Your task to perform on an android device: Go to CNN.com Image 0: 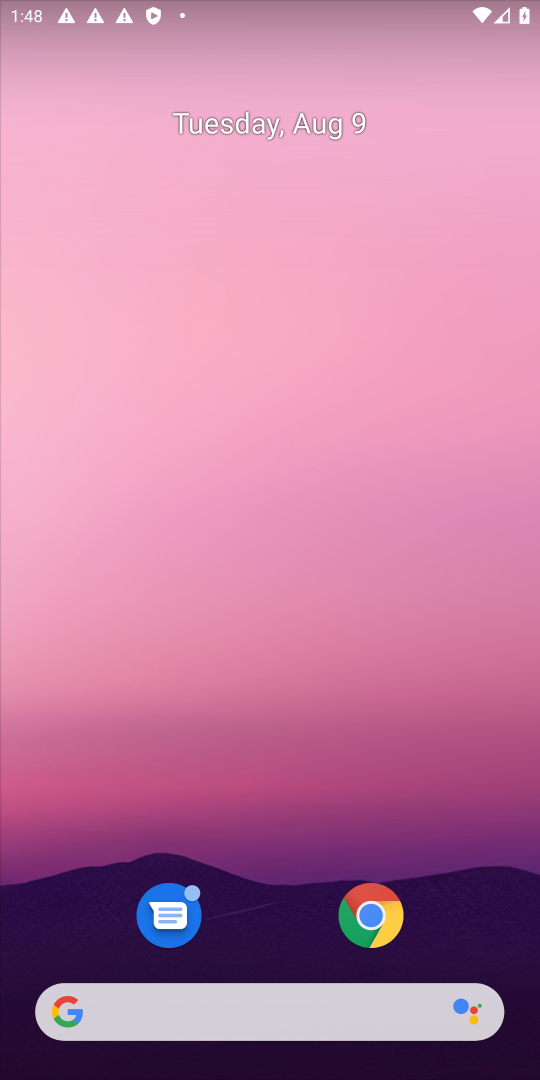
Step 0: drag from (302, 574) to (242, 351)
Your task to perform on an android device: Go to CNN.com Image 1: 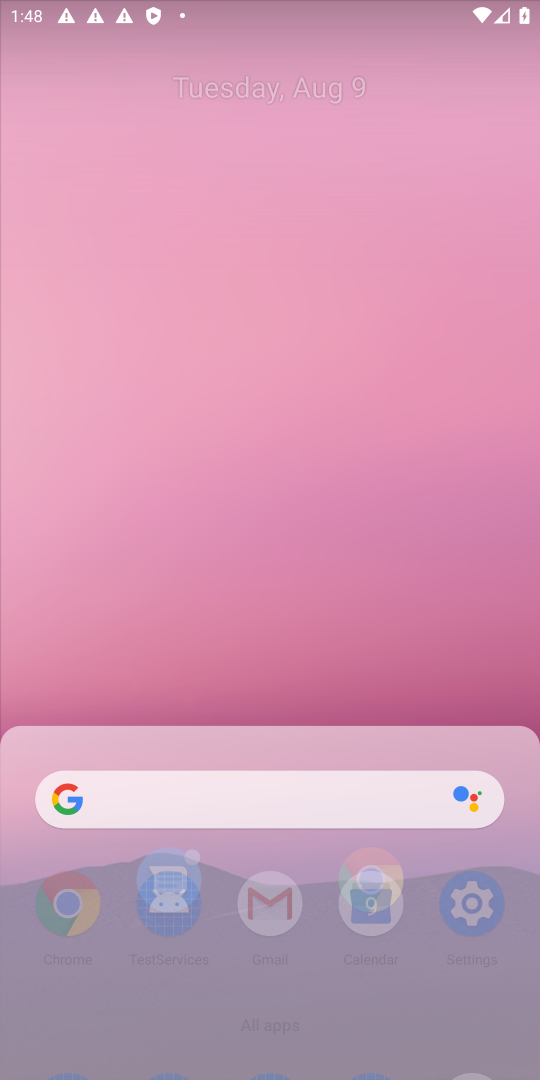
Step 1: drag from (268, 568) to (218, 257)
Your task to perform on an android device: Go to CNN.com Image 2: 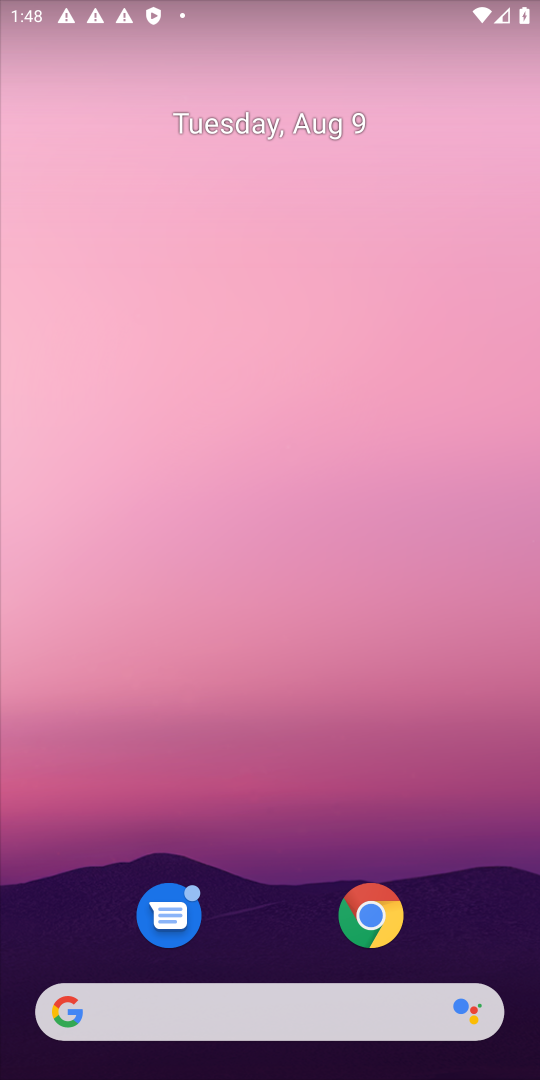
Step 2: drag from (214, 339) to (191, 183)
Your task to perform on an android device: Go to CNN.com Image 3: 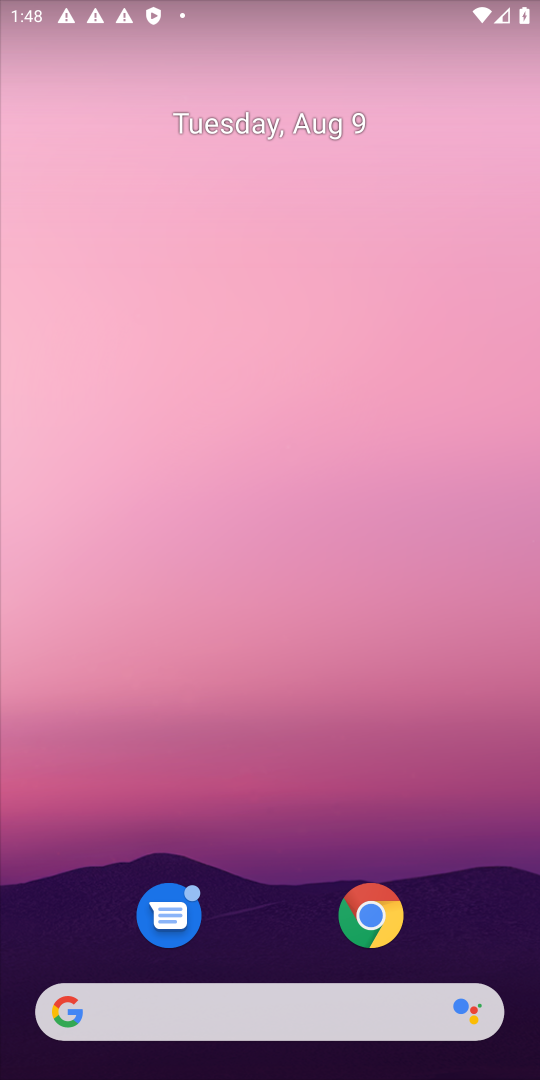
Step 3: drag from (238, 782) to (221, 355)
Your task to perform on an android device: Go to CNN.com Image 4: 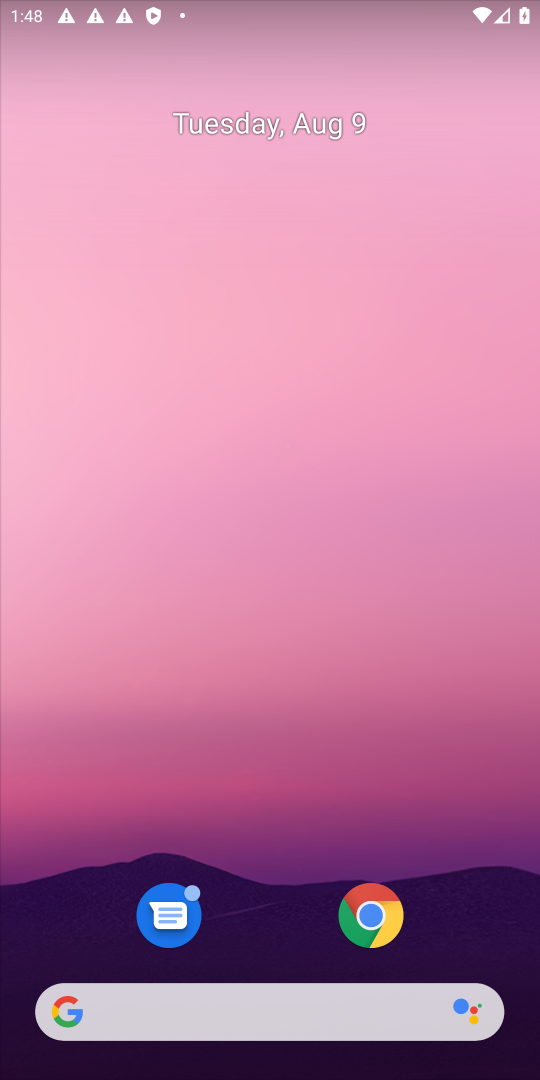
Step 4: drag from (247, 685) to (274, 225)
Your task to perform on an android device: Go to CNN.com Image 5: 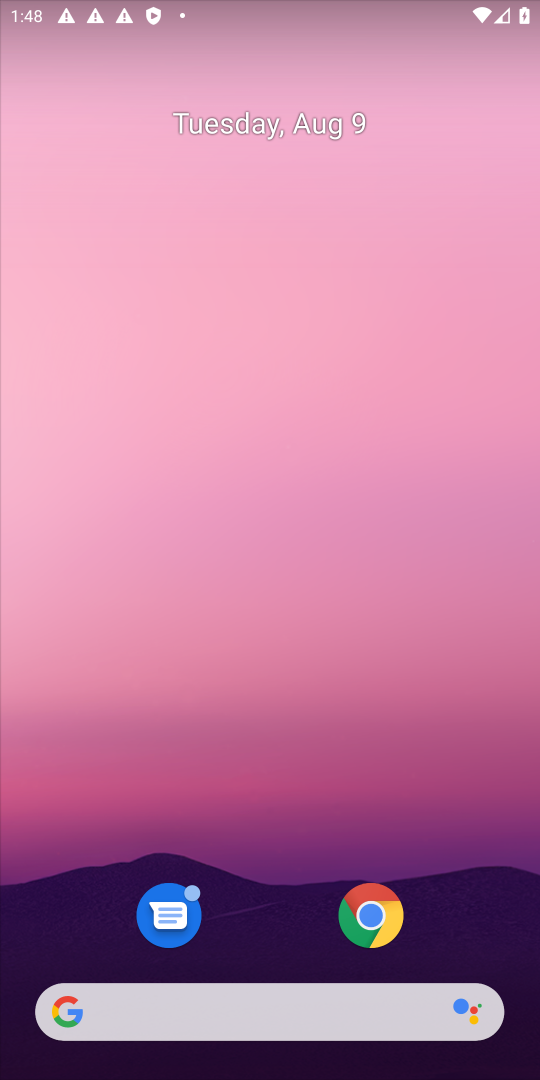
Step 5: drag from (353, 770) to (188, 253)
Your task to perform on an android device: Go to CNN.com Image 6: 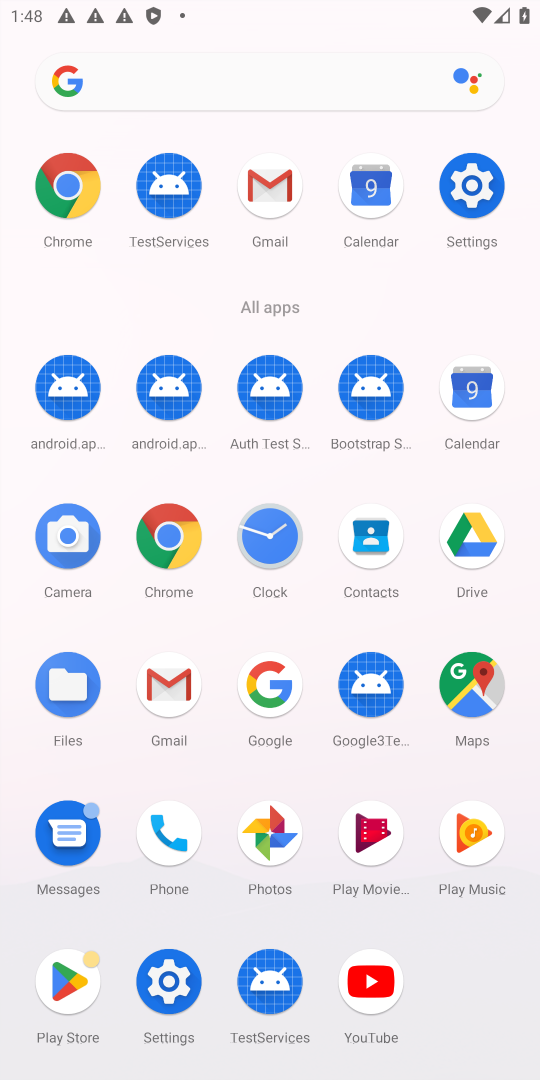
Step 6: click (75, 205)
Your task to perform on an android device: Go to CNN.com Image 7: 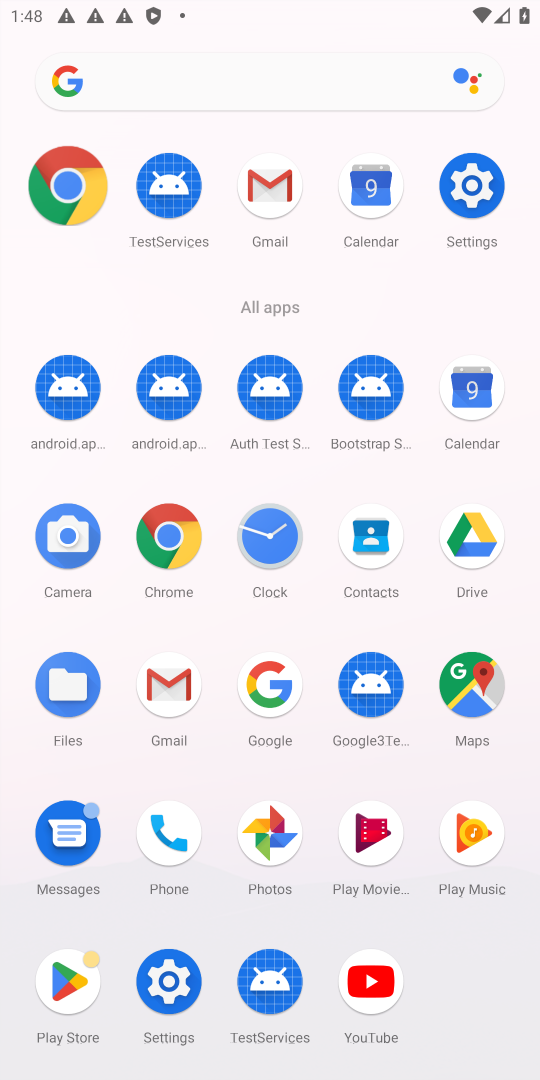
Step 7: click (74, 203)
Your task to perform on an android device: Go to CNN.com Image 8: 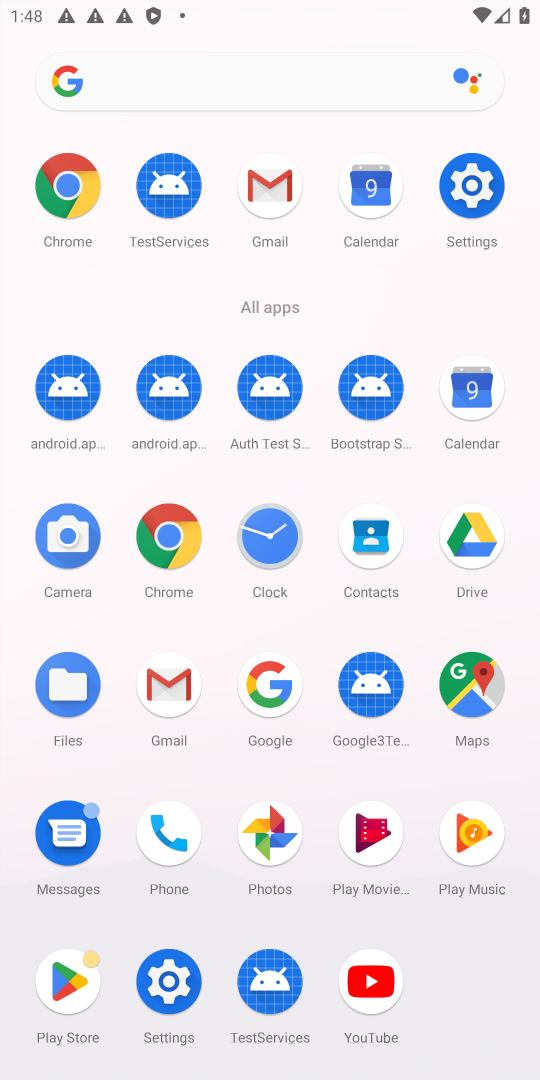
Step 8: click (63, 182)
Your task to perform on an android device: Go to CNN.com Image 9: 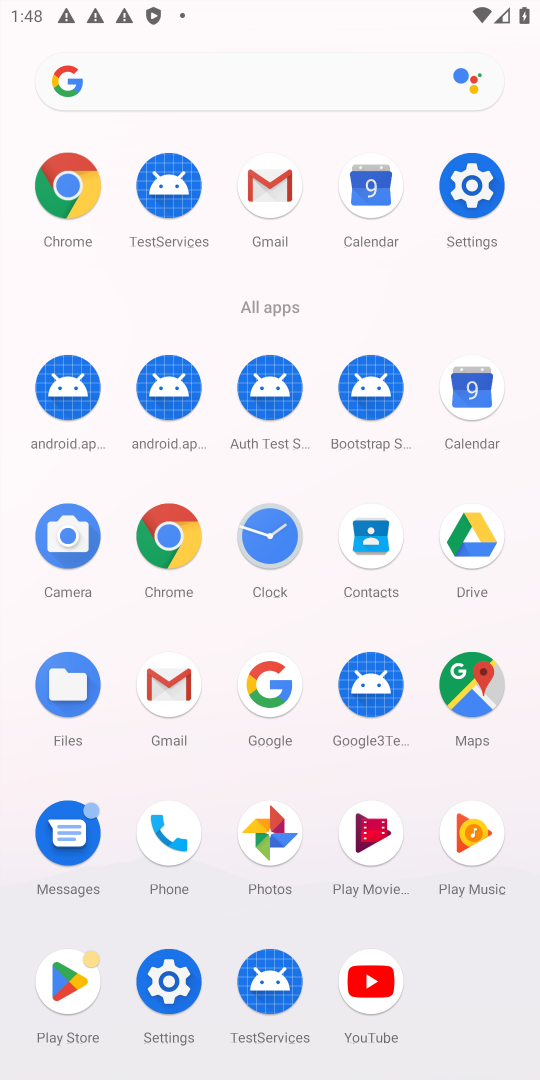
Step 9: click (62, 181)
Your task to perform on an android device: Go to CNN.com Image 10: 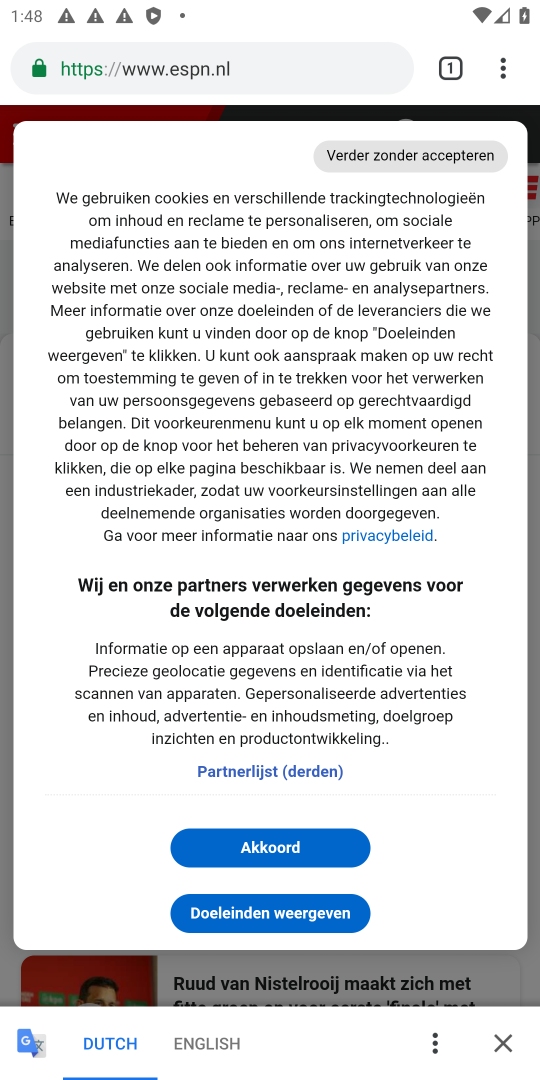
Step 10: drag from (514, 51) to (329, 819)
Your task to perform on an android device: Go to CNN.com Image 11: 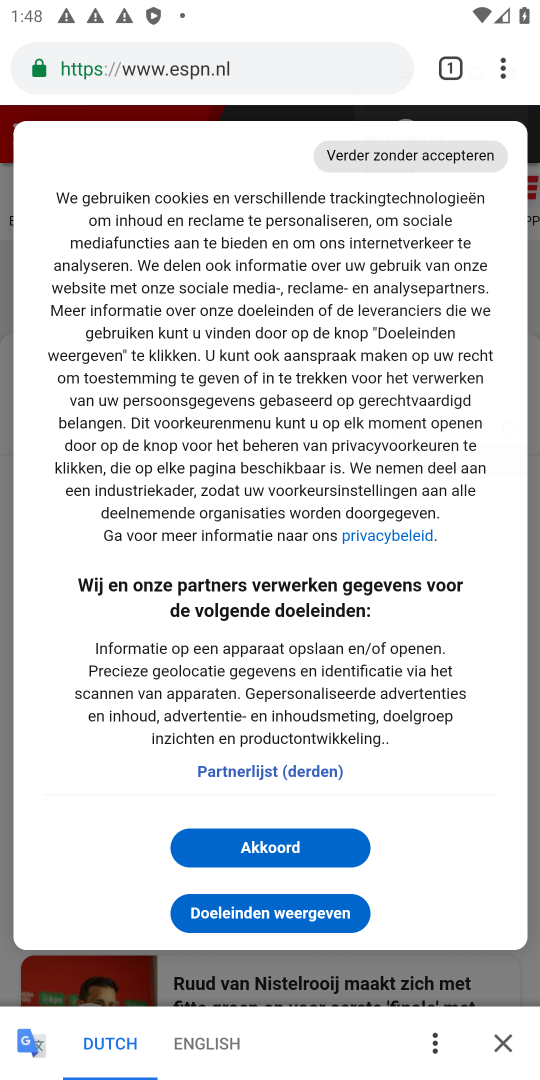
Step 11: click (242, 125)
Your task to perform on an android device: Go to CNN.com Image 12: 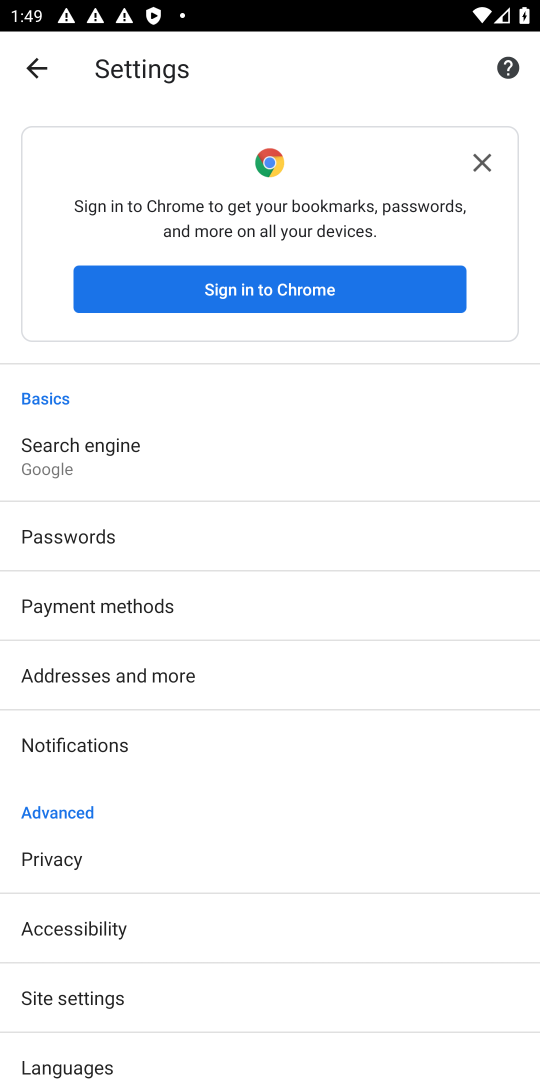
Step 12: click (29, 68)
Your task to perform on an android device: Go to CNN.com Image 13: 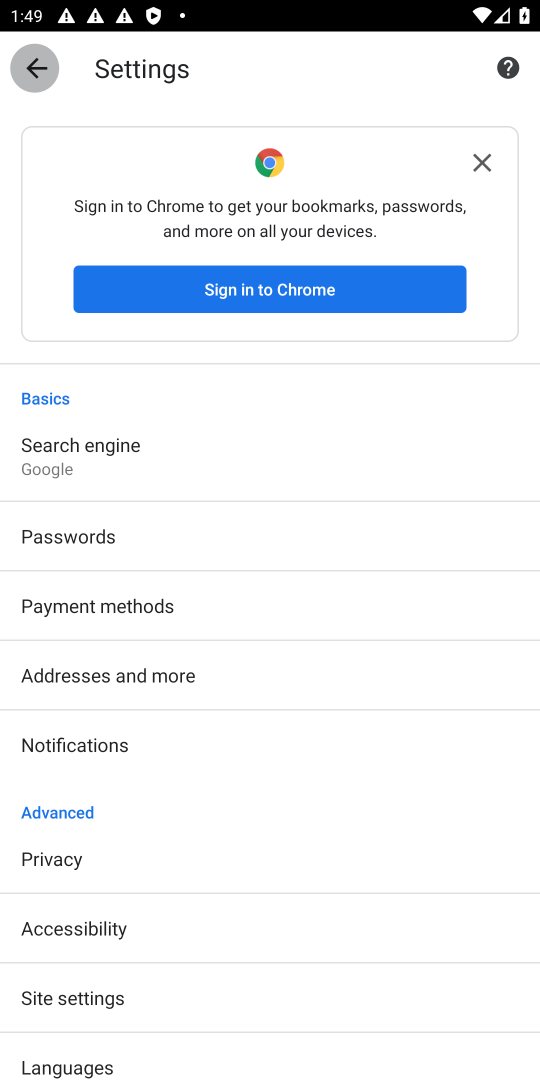
Step 13: click (29, 68)
Your task to perform on an android device: Go to CNN.com Image 14: 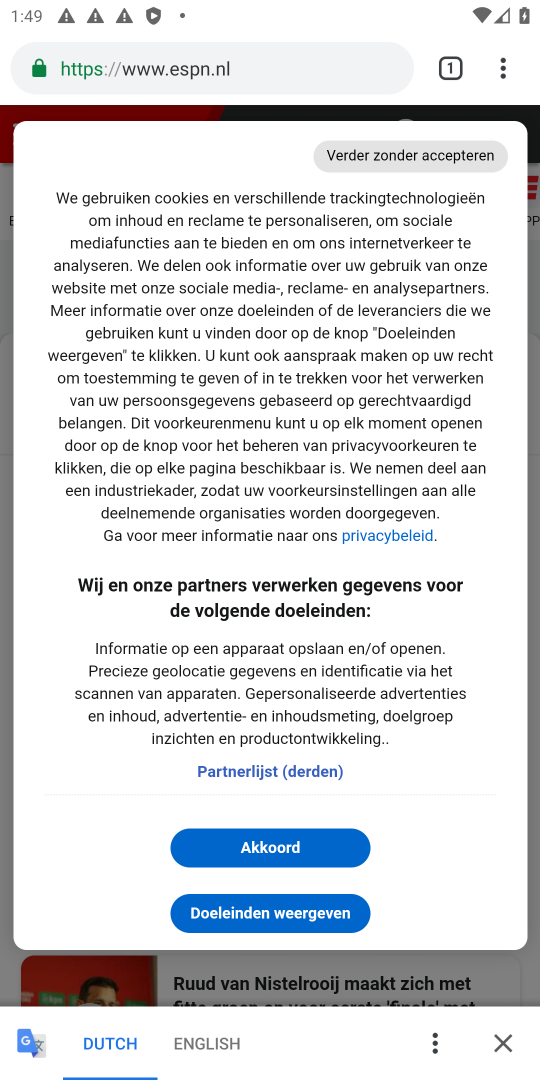
Step 14: click (491, 74)
Your task to perform on an android device: Go to CNN.com Image 15: 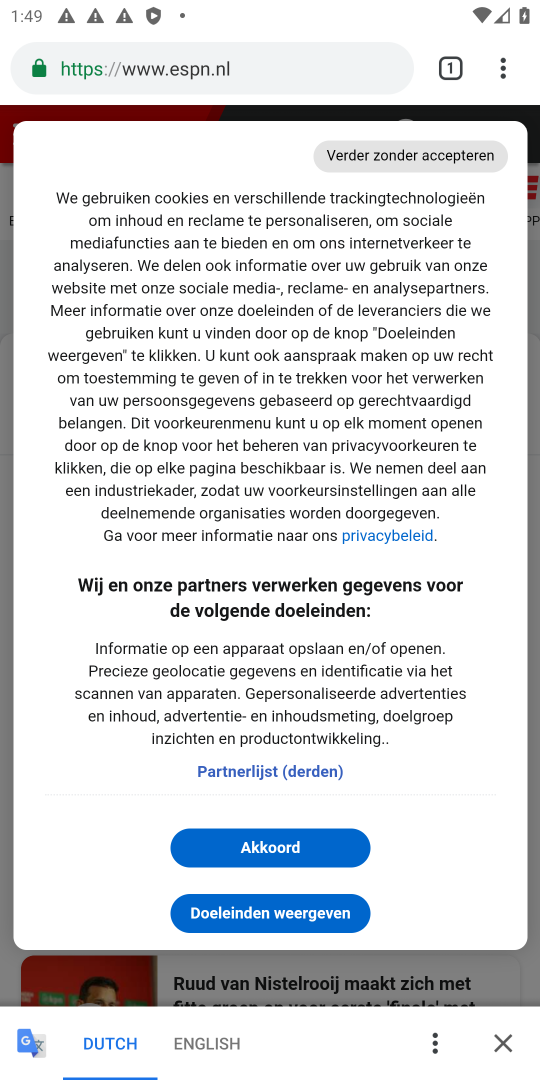
Step 15: click (494, 72)
Your task to perform on an android device: Go to CNN.com Image 16: 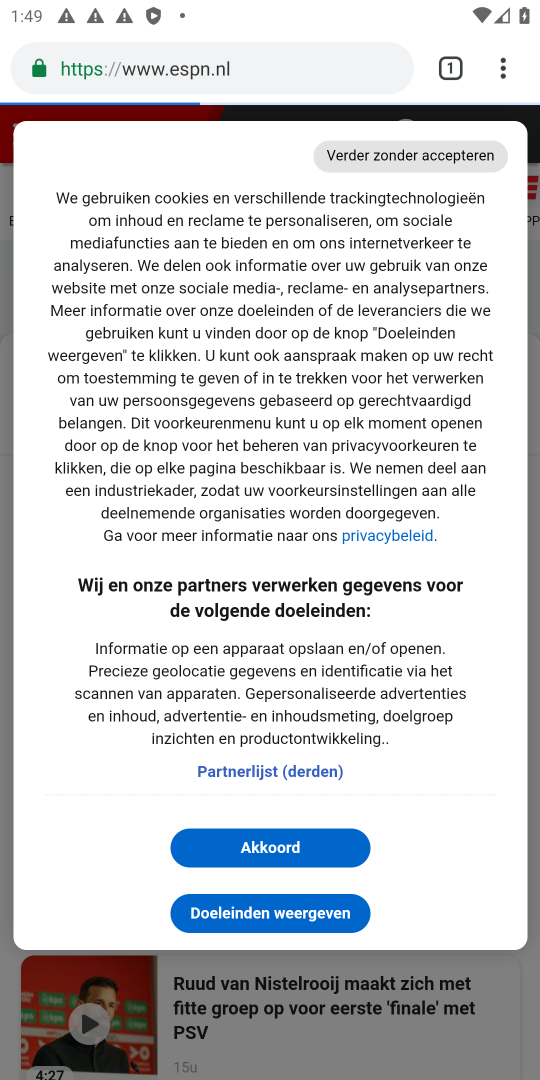
Step 16: click (487, 76)
Your task to perform on an android device: Go to CNN.com Image 17: 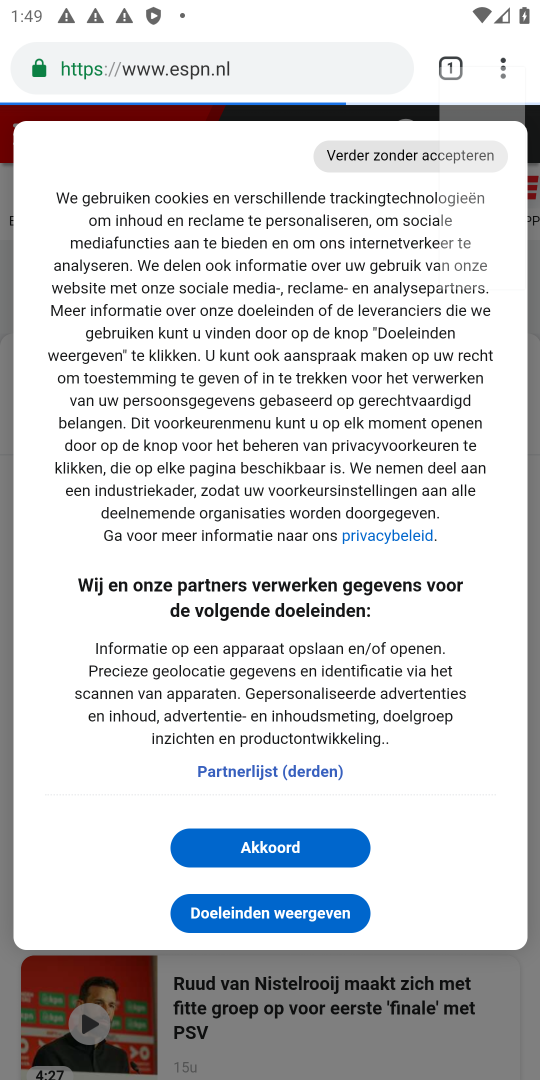
Step 17: click (487, 76)
Your task to perform on an android device: Go to CNN.com Image 18: 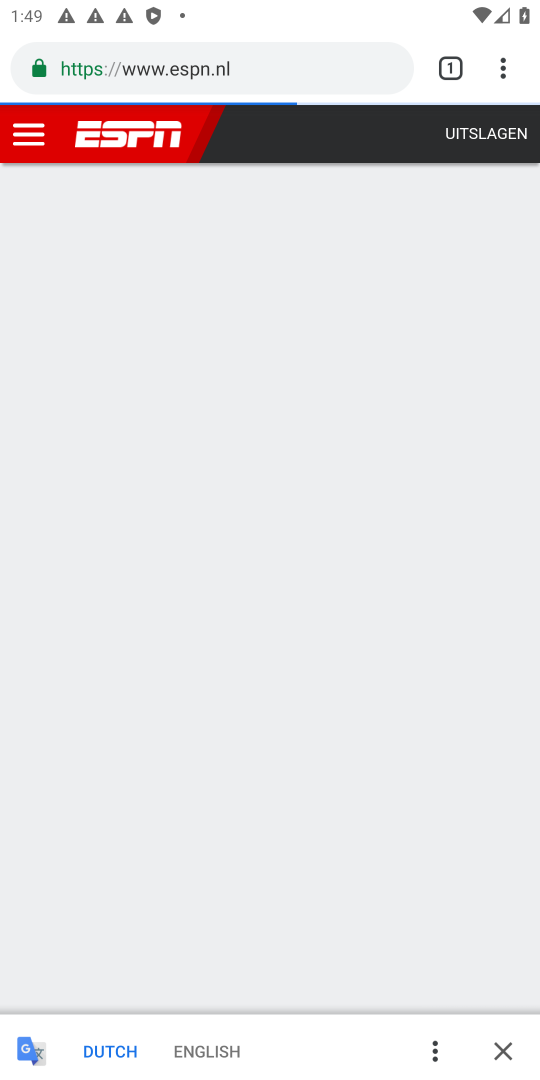
Step 18: drag from (487, 65) to (229, 131)
Your task to perform on an android device: Go to CNN.com Image 19: 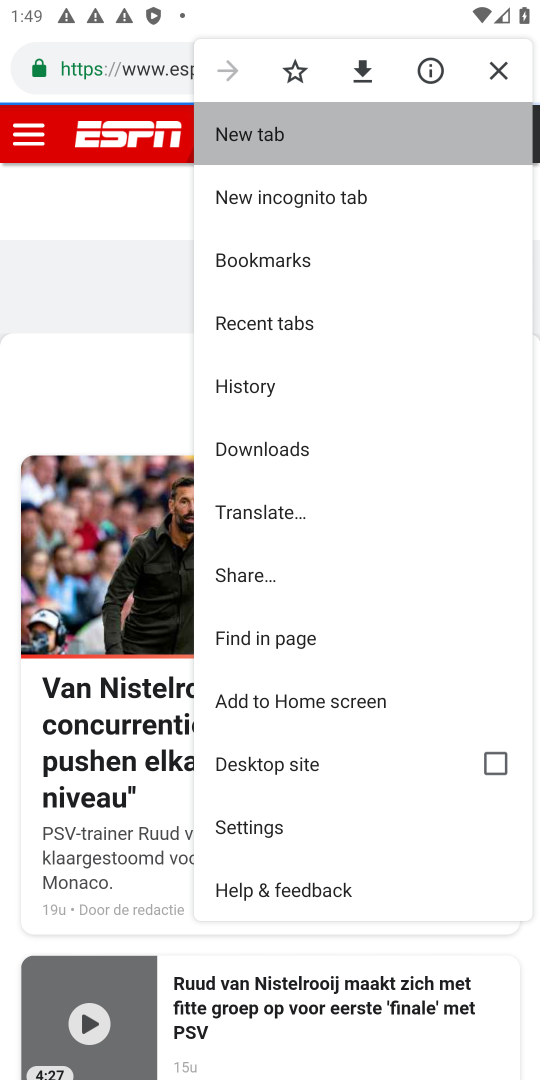
Step 19: click (231, 130)
Your task to perform on an android device: Go to CNN.com Image 20: 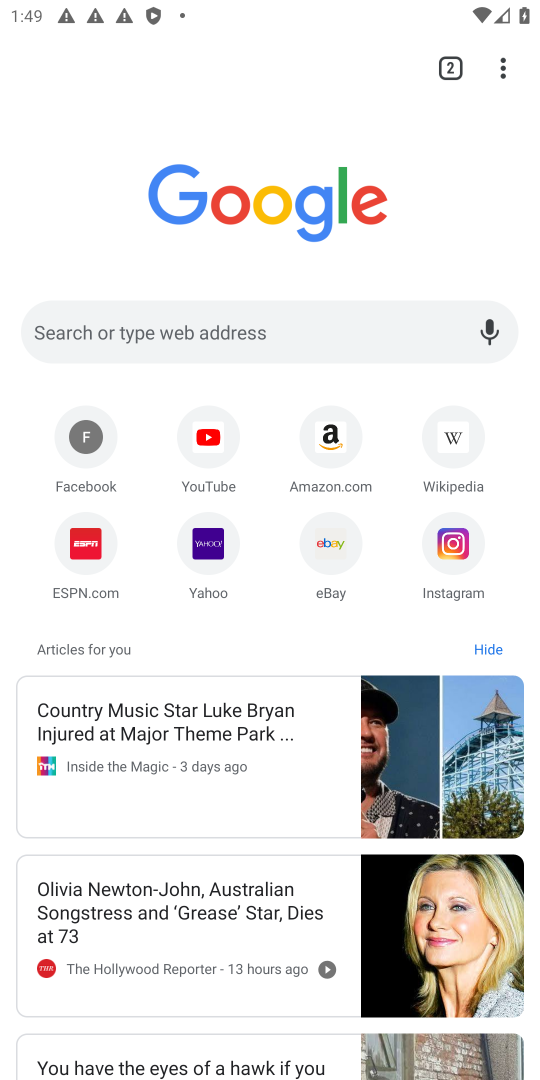
Step 20: click (93, 330)
Your task to perform on an android device: Go to CNN.com Image 21: 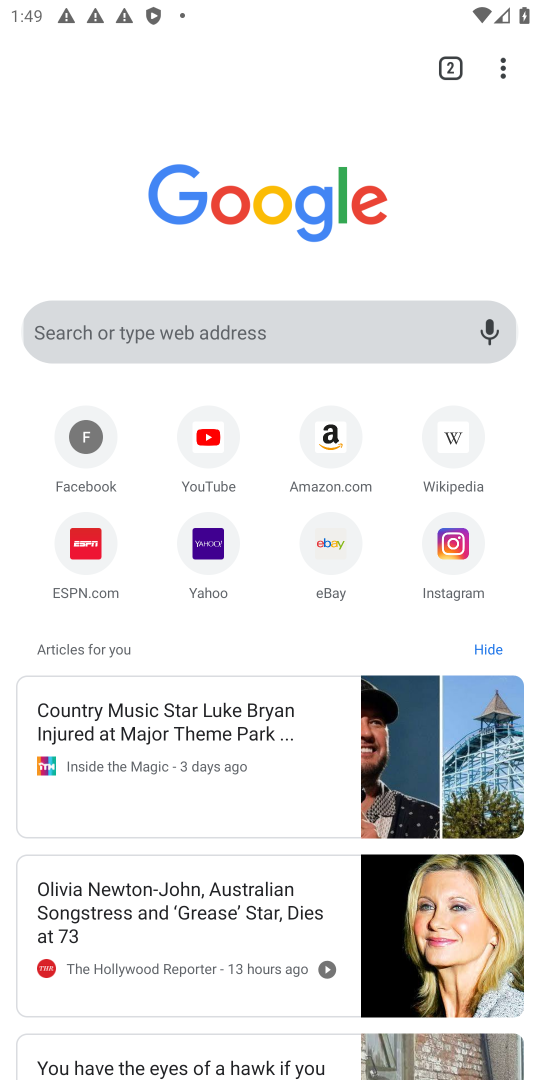
Step 21: click (93, 330)
Your task to perform on an android device: Go to CNN.com Image 22: 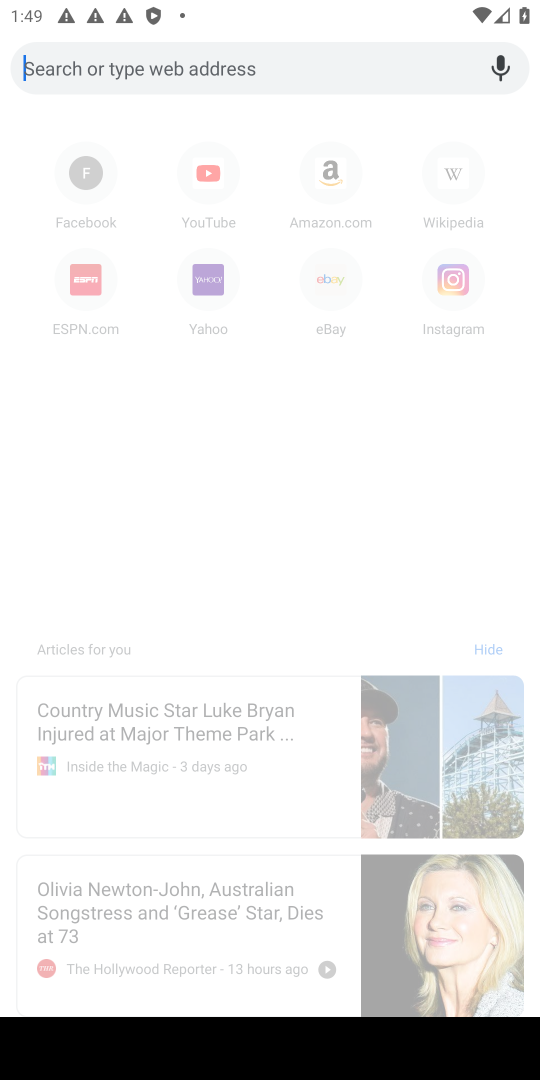
Step 22: type "CNN.com"
Your task to perform on an android device: Go to CNN.com Image 23: 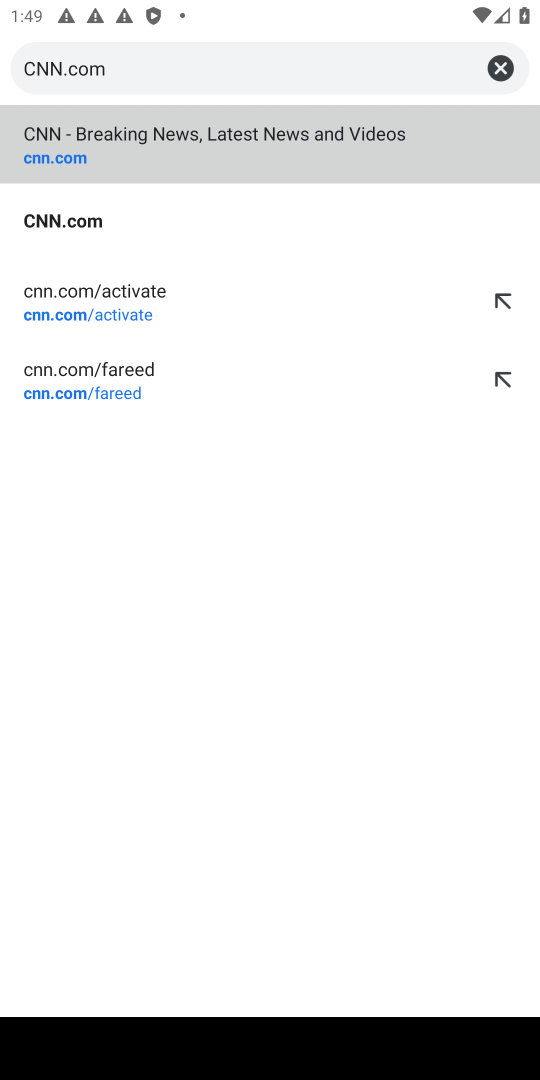
Step 23: click (82, 158)
Your task to perform on an android device: Go to CNN.com Image 24: 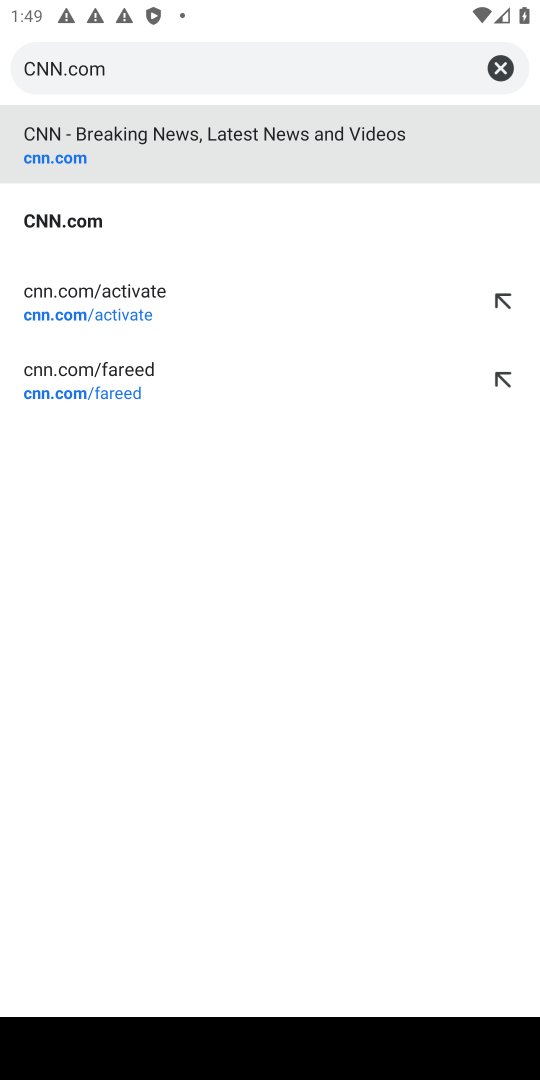
Step 24: click (81, 158)
Your task to perform on an android device: Go to CNN.com Image 25: 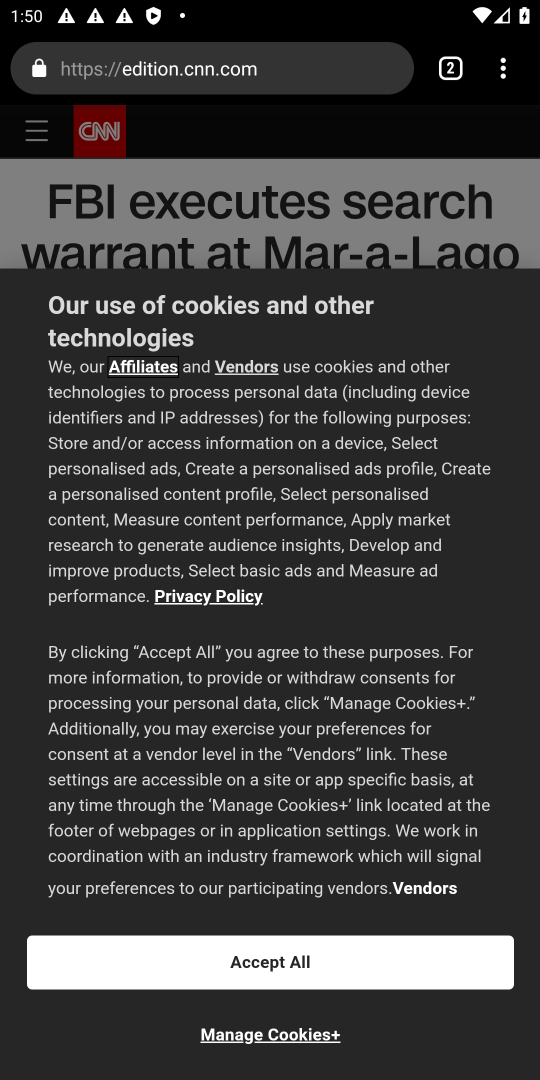
Step 25: click (502, 207)
Your task to perform on an android device: Go to CNN.com Image 26: 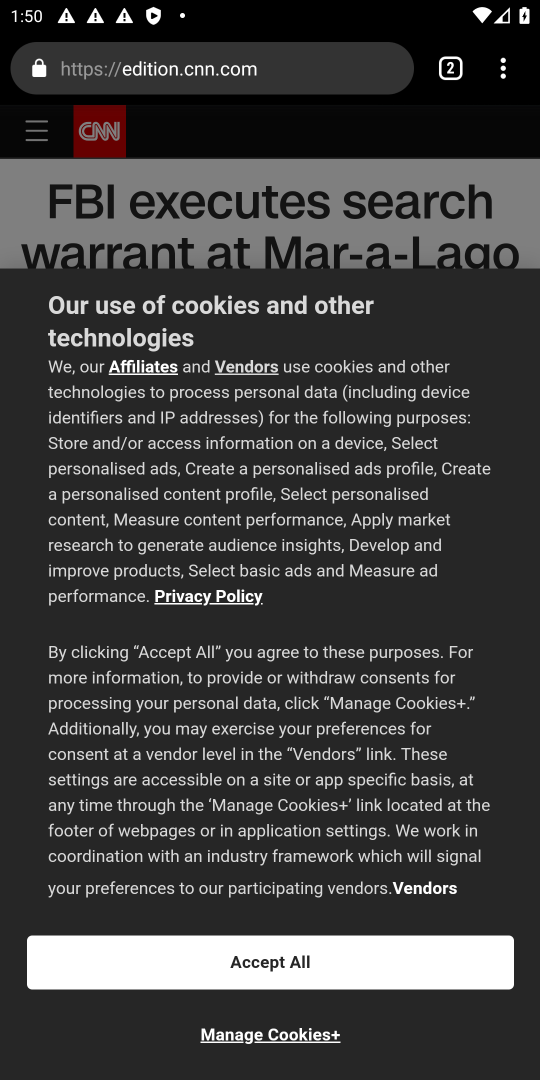
Step 26: task complete